Your task to perform on an android device: Open Android settings Image 0: 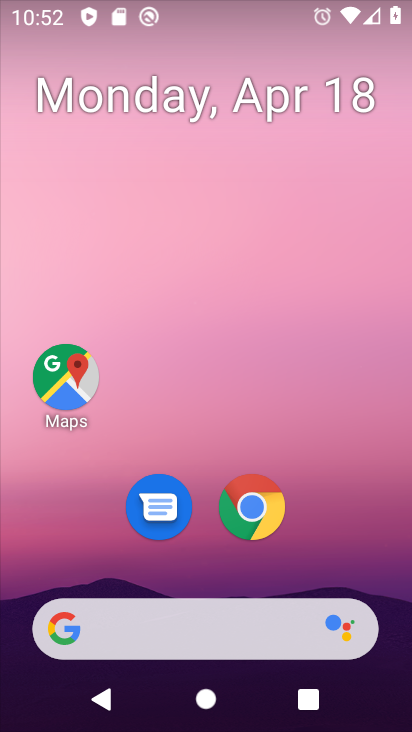
Step 0: drag from (248, 696) to (307, 0)
Your task to perform on an android device: Open Android settings Image 1: 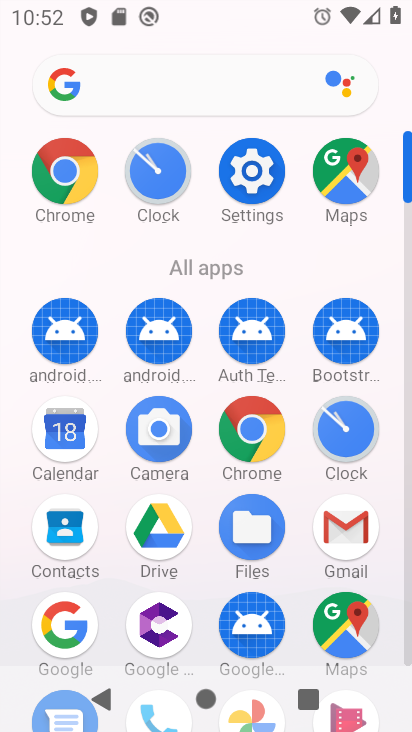
Step 1: click (247, 182)
Your task to perform on an android device: Open Android settings Image 2: 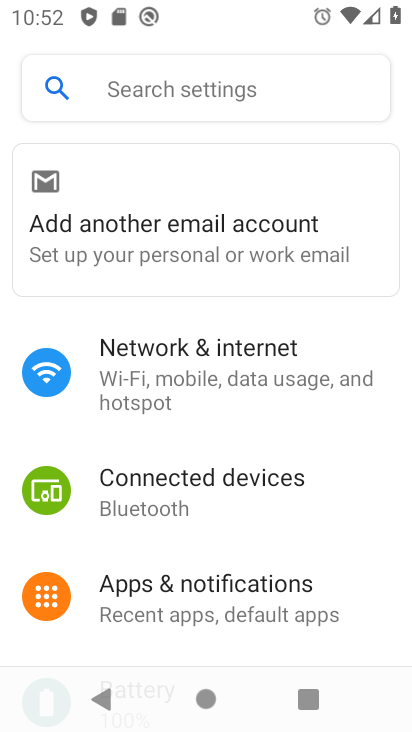
Step 2: click (214, 99)
Your task to perform on an android device: Open Android settings Image 3: 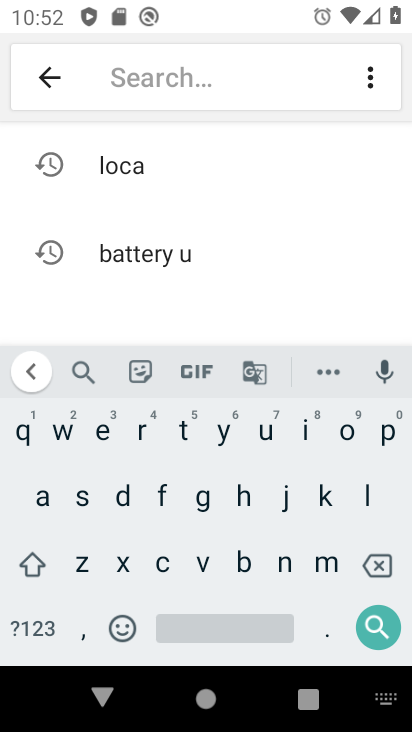
Step 3: click (47, 496)
Your task to perform on an android device: Open Android settings Image 4: 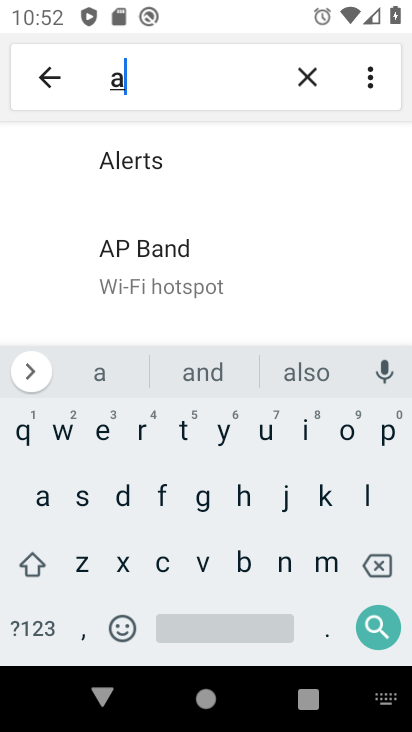
Step 4: click (287, 559)
Your task to perform on an android device: Open Android settings Image 5: 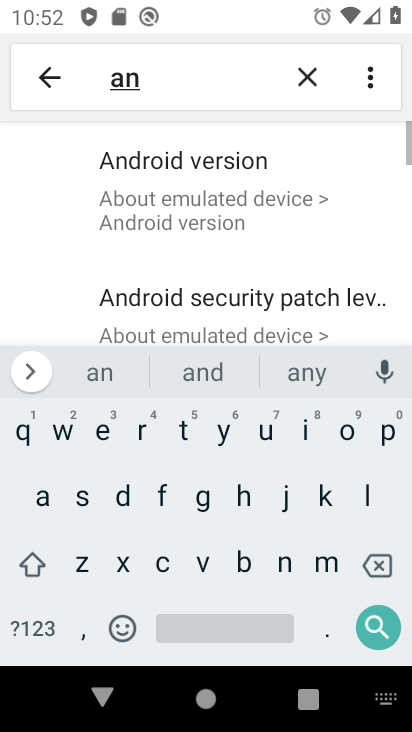
Step 5: click (113, 499)
Your task to perform on an android device: Open Android settings Image 6: 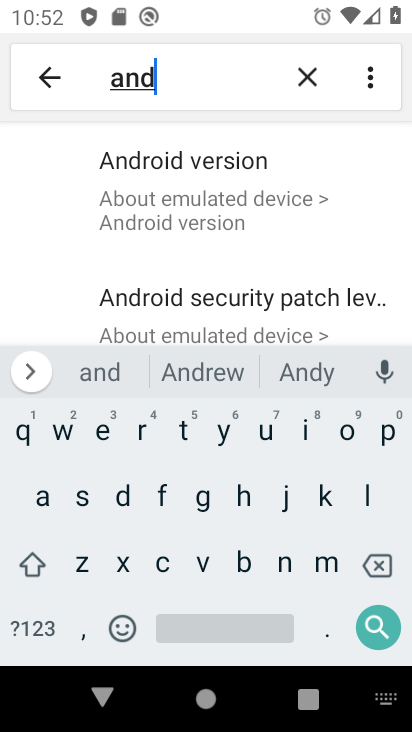
Step 6: click (210, 206)
Your task to perform on an android device: Open Android settings Image 7: 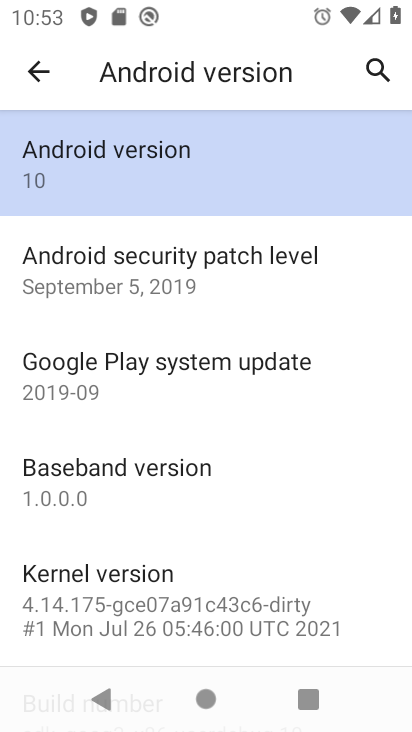
Step 7: task complete